Your task to perform on an android device: check the backup settings in the google photos Image 0: 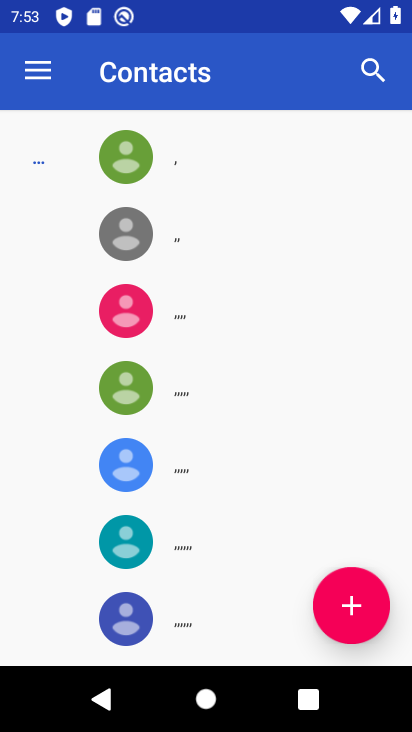
Step 0: press home button
Your task to perform on an android device: check the backup settings in the google photos Image 1: 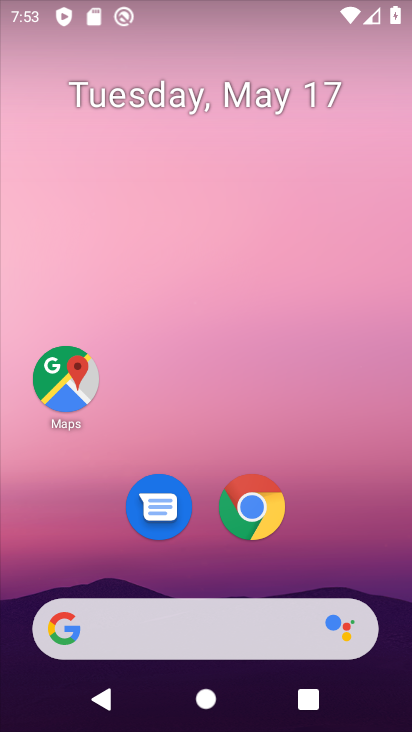
Step 1: drag from (377, 588) to (308, 6)
Your task to perform on an android device: check the backup settings in the google photos Image 2: 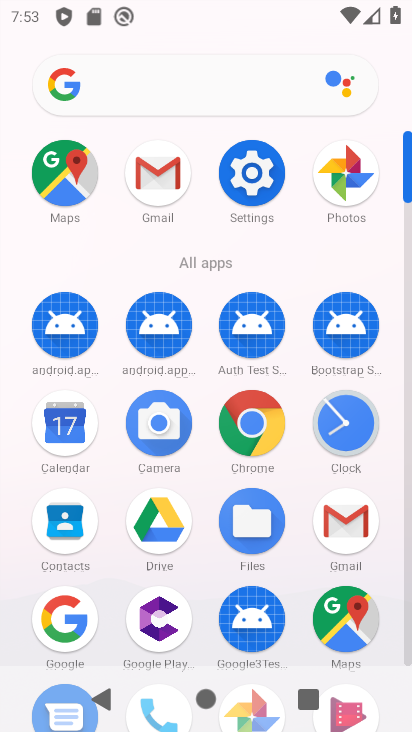
Step 2: click (337, 177)
Your task to perform on an android device: check the backup settings in the google photos Image 3: 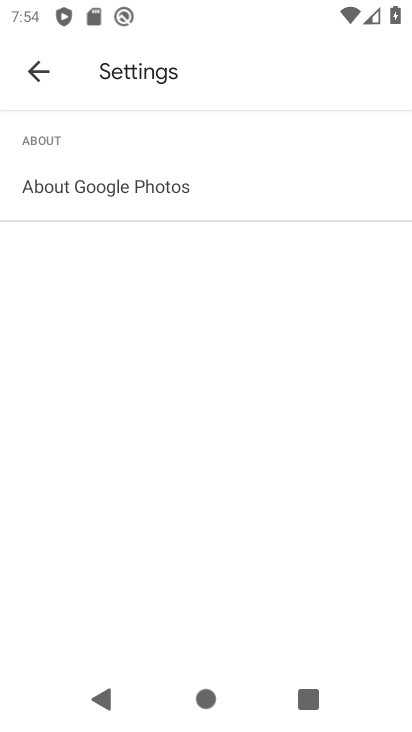
Step 3: click (24, 74)
Your task to perform on an android device: check the backup settings in the google photos Image 4: 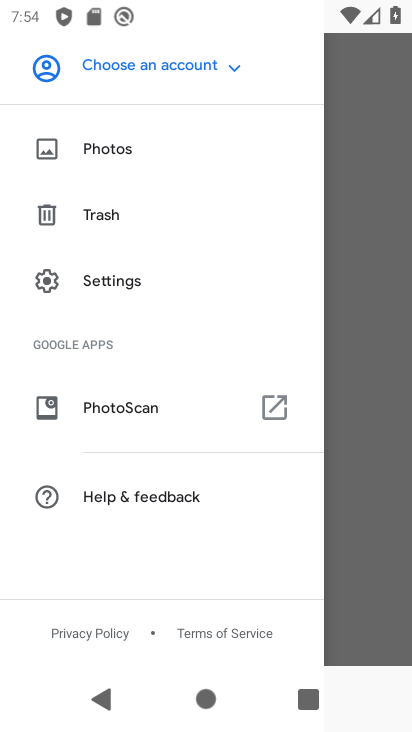
Step 4: click (86, 278)
Your task to perform on an android device: check the backup settings in the google photos Image 5: 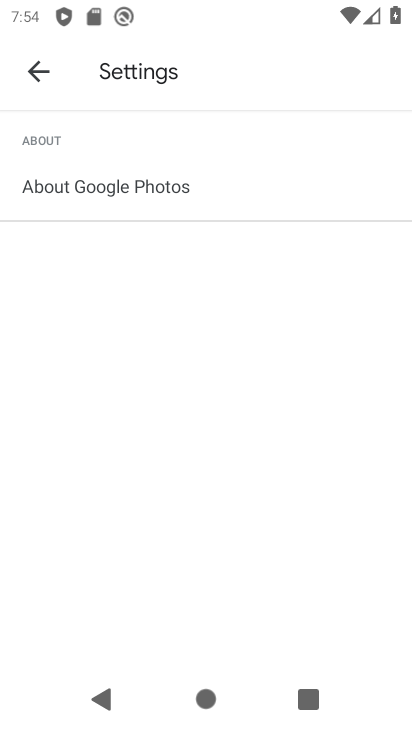
Step 5: click (103, 188)
Your task to perform on an android device: check the backup settings in the google photos Image 6: 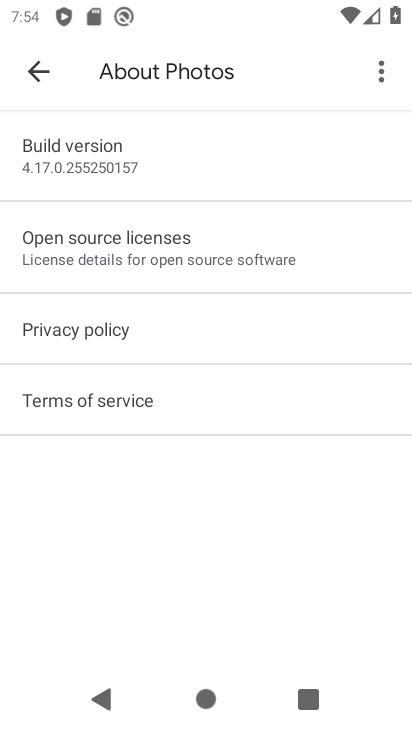
Step 6: click (385, 68)
Your task to perform on an android device: check the backup settings in the google photos Image 7: 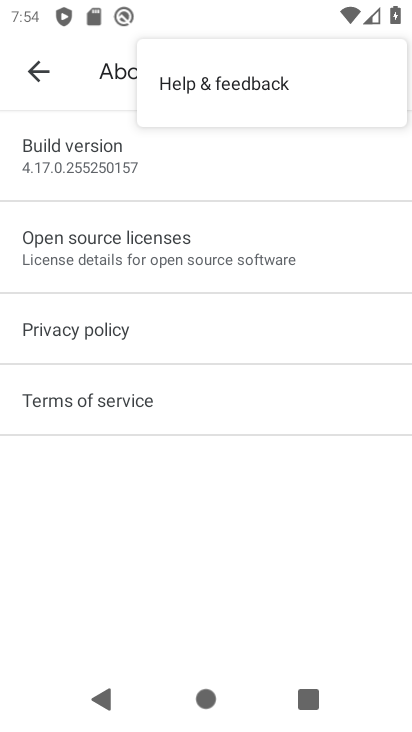
Step 7: task complete